Your task to perform on an android device: turn on translation in the chrome app Image 0: 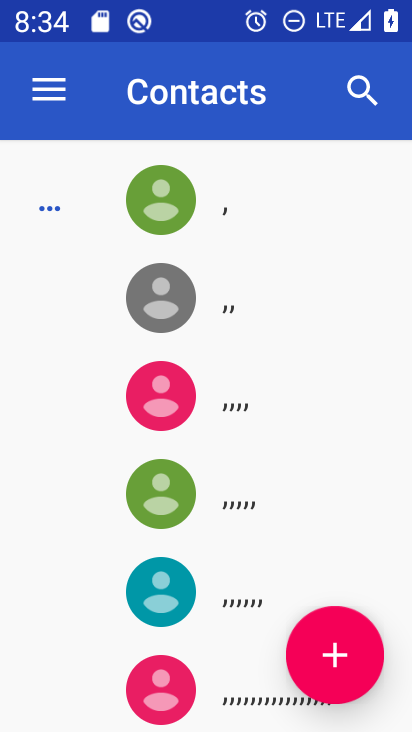
Step 0: press home button
Your task to perform on an android device: turn on translation in the chrome app Image 1: 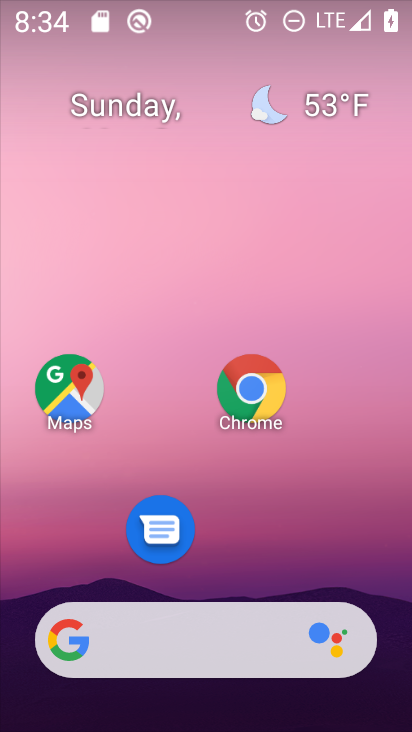
Step 1: click (268, 389)
Your task to perform on an android device: turn on translation in the chrome app Image 2: 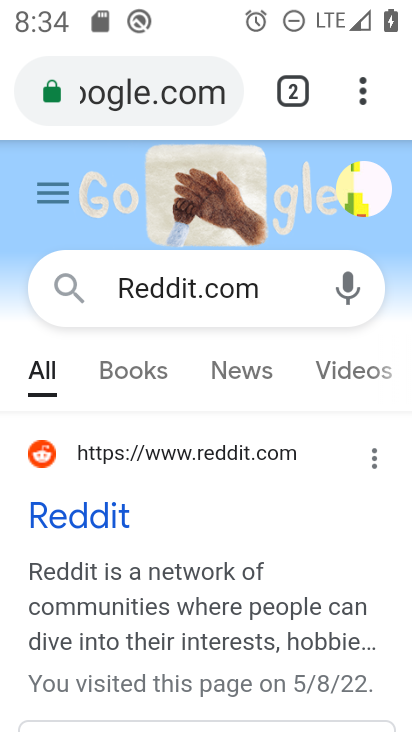
Step 2: click (366, 115)
Your task to perform on an android device: turn on translation in the chrome app Image 3: 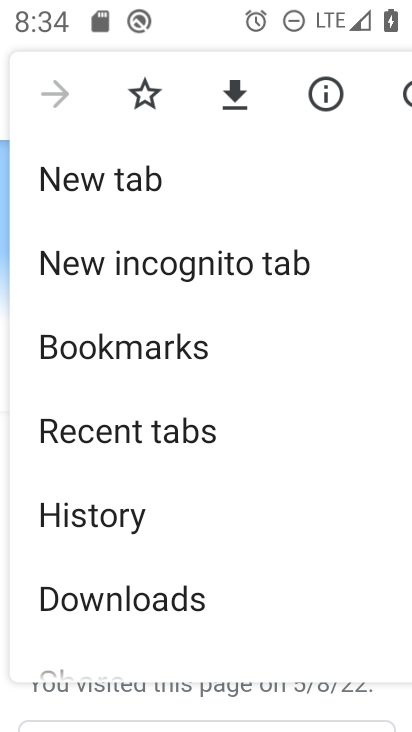
Step 3: drag from (122, 561) to (164, 247)
Your task to perform on an android device: turn on translation in the chrome app Image 4: 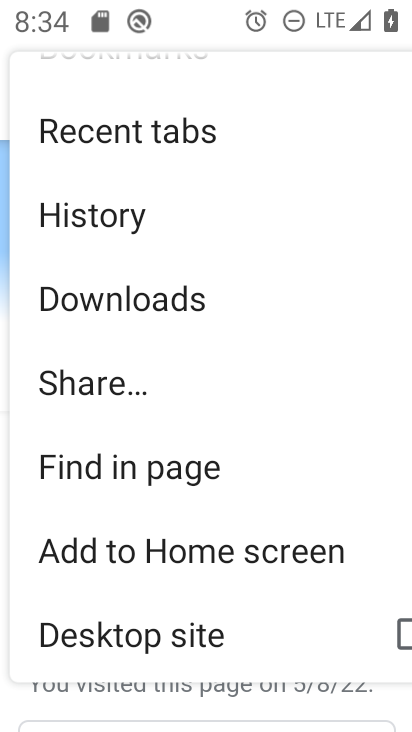
Step 4: drag from (111, 616) to (170, 277)
Your task to perform on an android device: turn on translation in the chrome app Image 5: 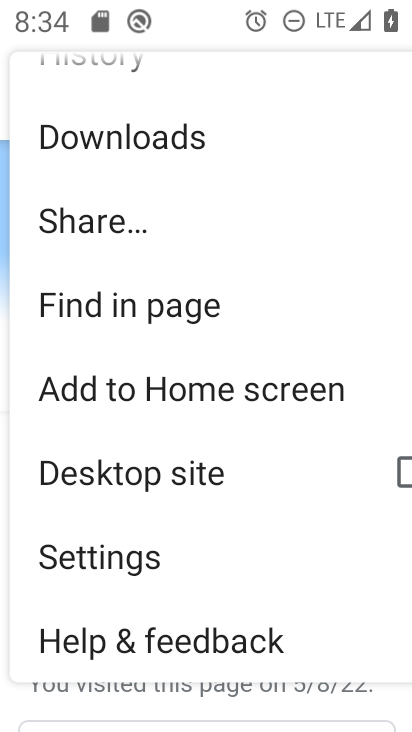
Step 5: click (99, 563)
Your task to perform on an android device: turn on translation in the chrome app Image 6: 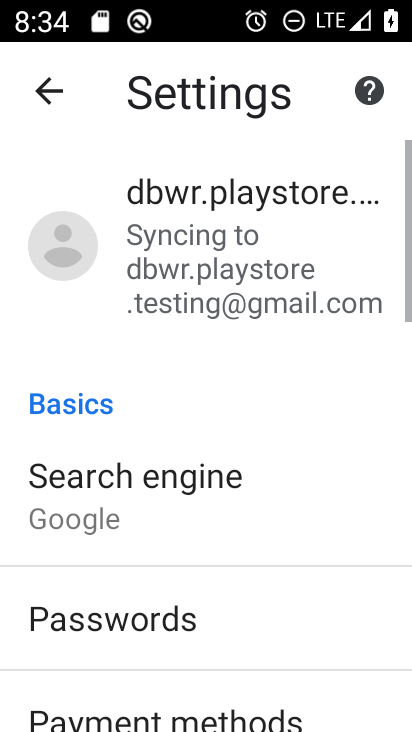
Step 6: drag from (156, 580) to (211, 229)
Your task to perform on an android device: turn on translation in the chrome app Image 7: 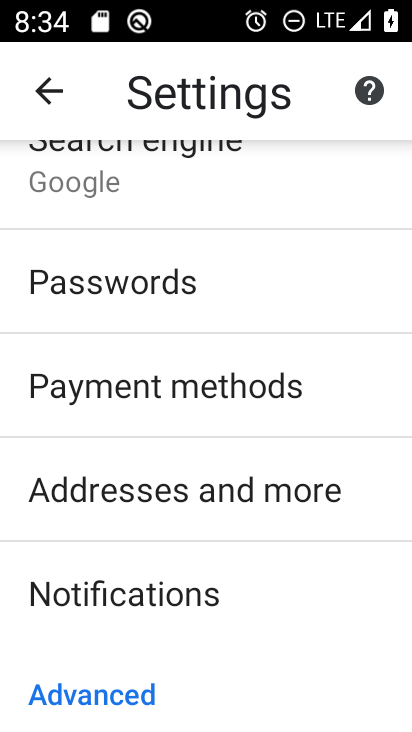
Step 7: drag from (190, 586) to (218, 261)
Your task to perform on an android device: turn on translation in the chrome app Image 8: 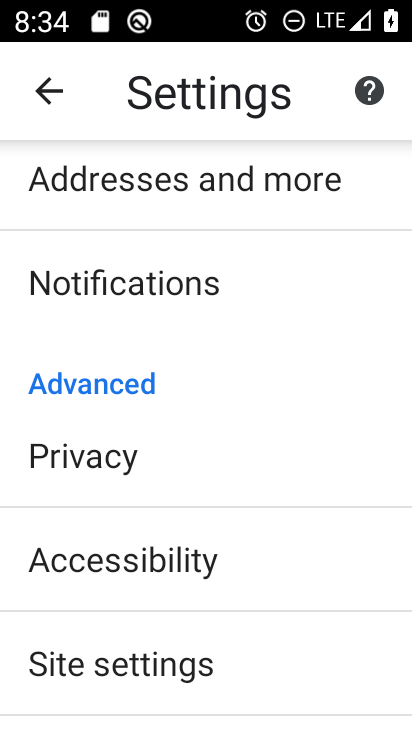
Step 8: drag from (113, 656) to (146, 159)
Your task to perform on an android device: turn on translation in the chrome app Image 9: 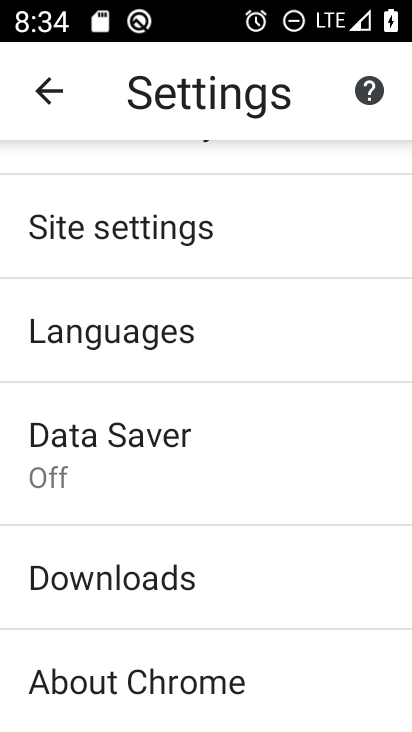
Step 9: click (117, 348)
Your task to perform on an android device: turn on translation in the chrome app Image 10: 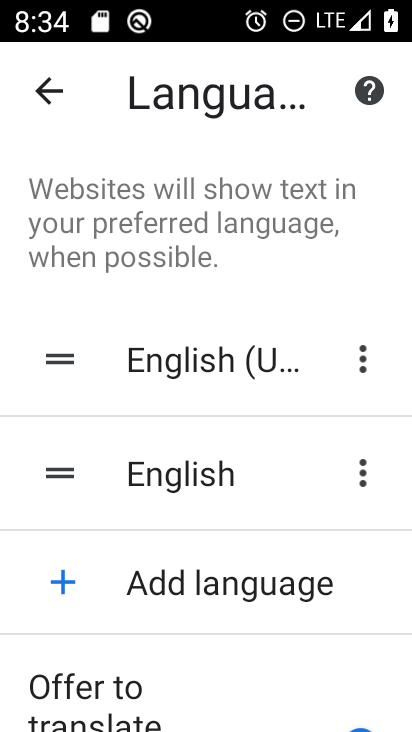
Step 10: task complete